Your task to perform on an android device: Show me popular games on the Play Store Image 0: 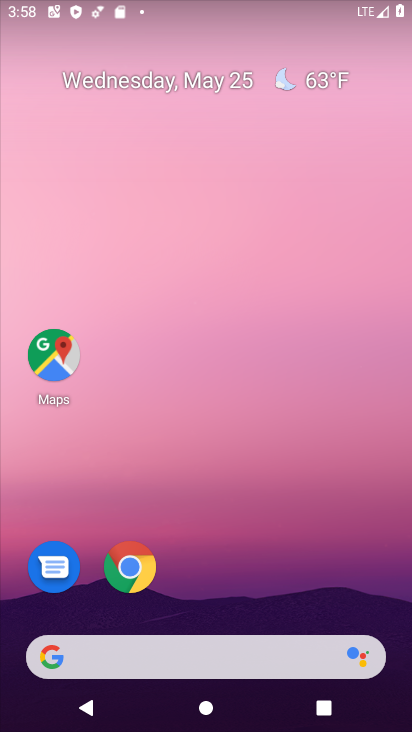
Step 0: drag from (235, 579) to (318, 105)
Your task to perform on an android device: Show me popular games on the Play Store Image 1: 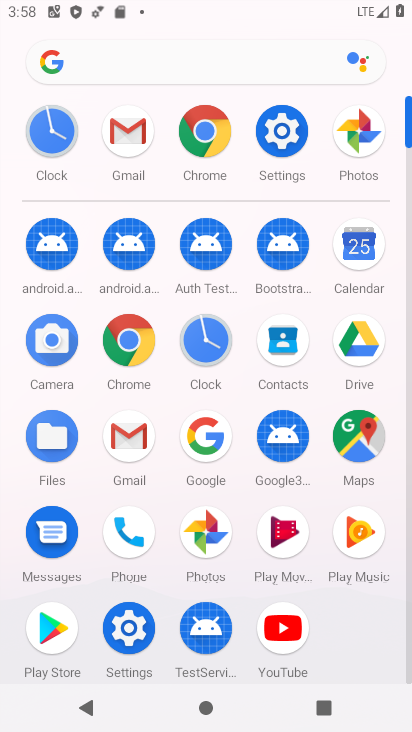
Step 1: click (49, 622)
Your task to perform on an android device: Show me popular games on the Play Store Image 2: 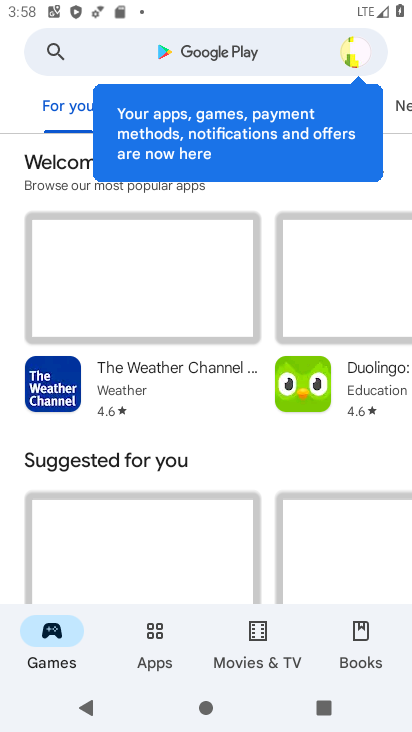
Step 2: click (207, 51)
Your task to perform on an android device: Show me popular games on the Play Store Image 3: 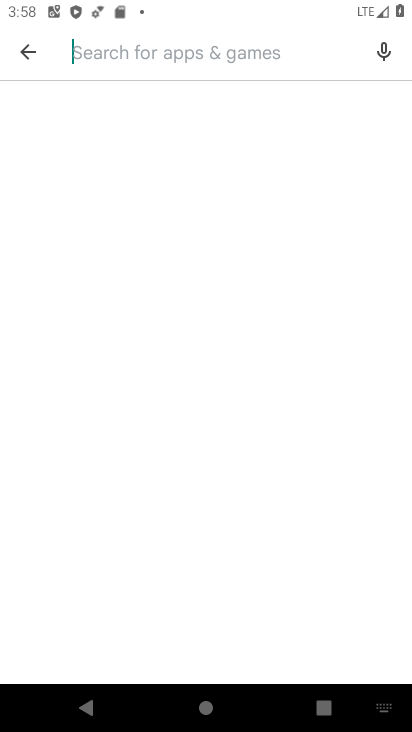
Step 3: click (207, 51)
Your task to perform on an android device: Show me popular games on the Play Store Image 4: 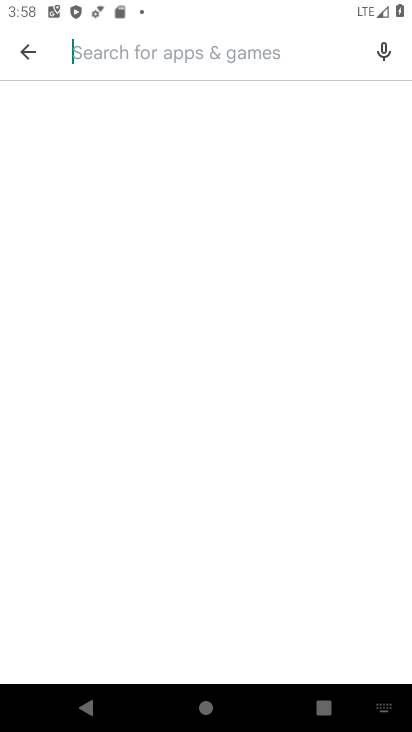
Step 4: type " popular games "
Your task to perform on an android device: Show me popular games on the Play Store Image 5: 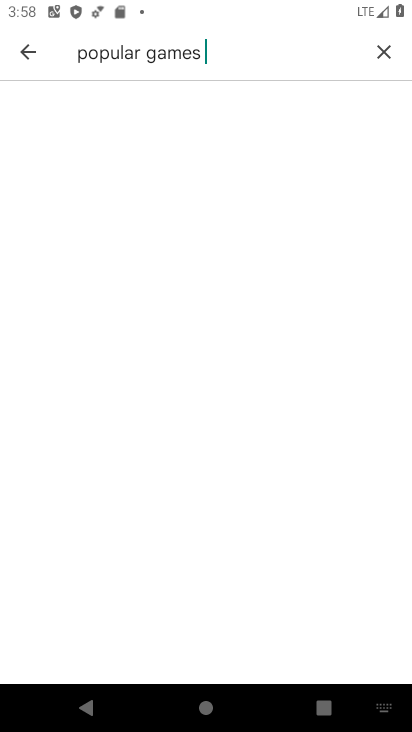
Step 5: type ""
Your task to perform on an android device: Show me popular games on the Play Store Image 6: 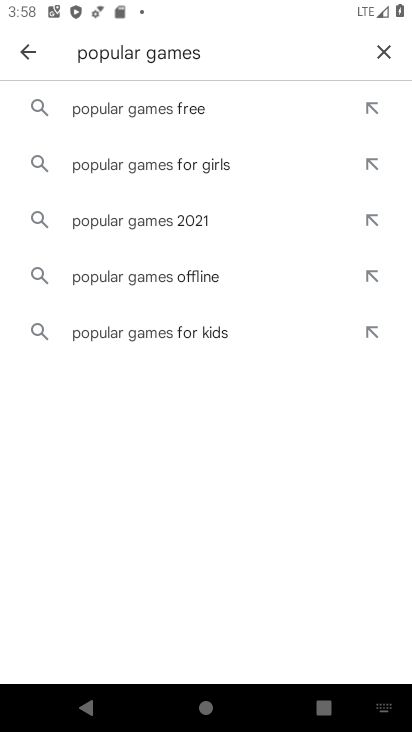
Step 6: click (157, 108)
Your task to perform on an android device: Show me popular games on the Play Store Image 7: 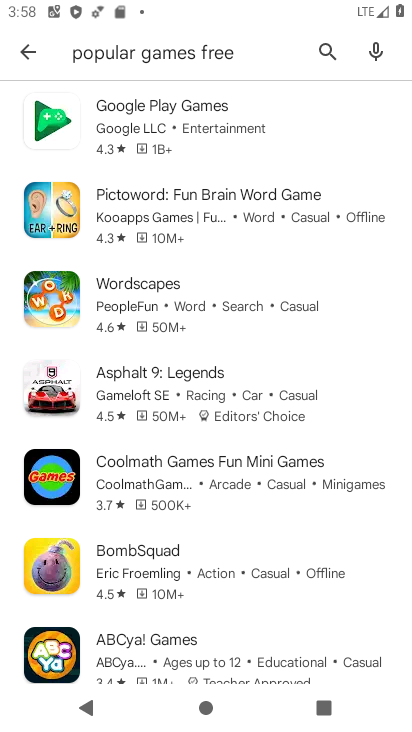
Step 7: task complete